Your task to perform on an android device: create a new album in the google photos Image 0: 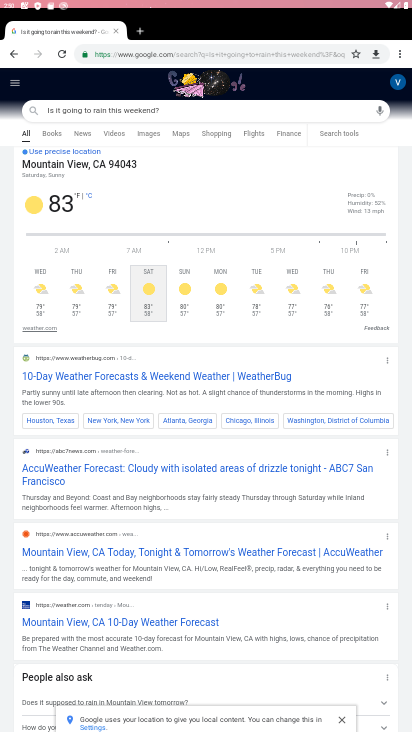
Step 0: drag from (319, 455) to (343, 64)
Your task to perform on an android device: create a new album in the google photos Image 1: 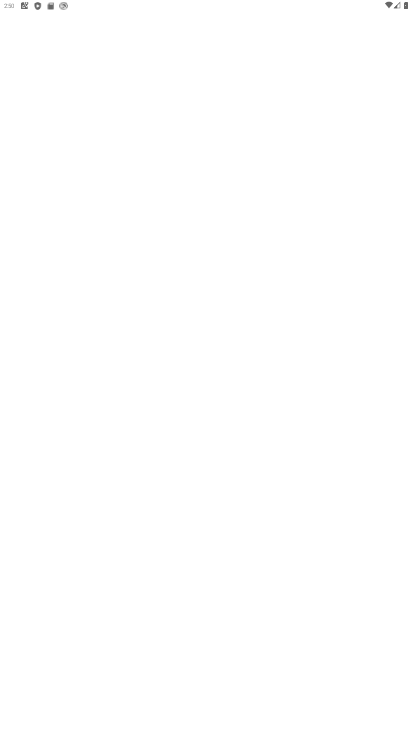
Step 1: press home button
Your task to perform on an android device: create a new album in the google photos Image 2: 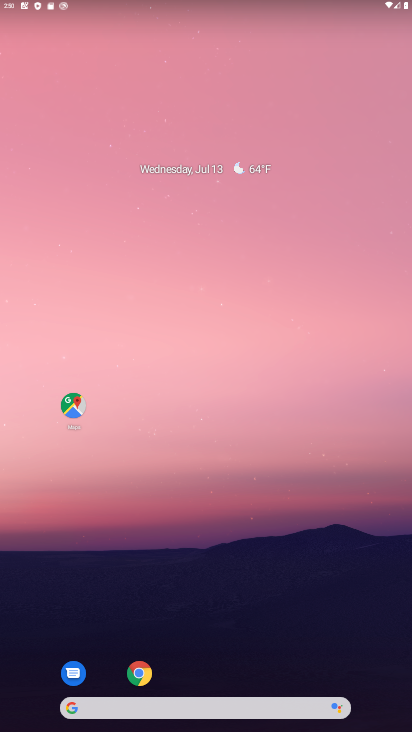
Step 2: drag from (308, 629) to (353, 130)
Your task to perform on an android device: create a new album in the google photos Image 3: 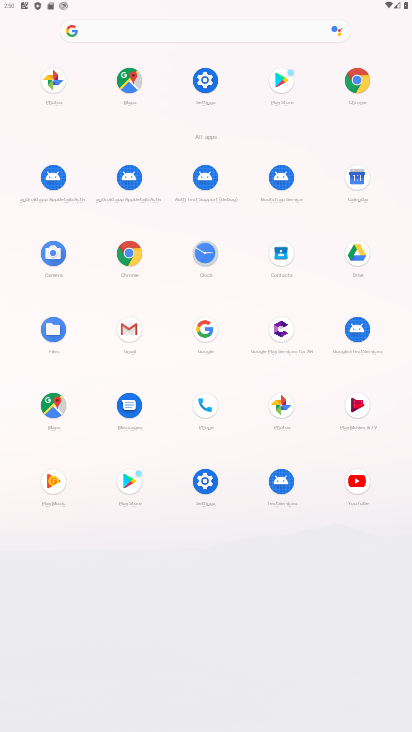
Step 3: click (277, 401)
Your task to perform on an android device: create a new album in the google photos Image 4: 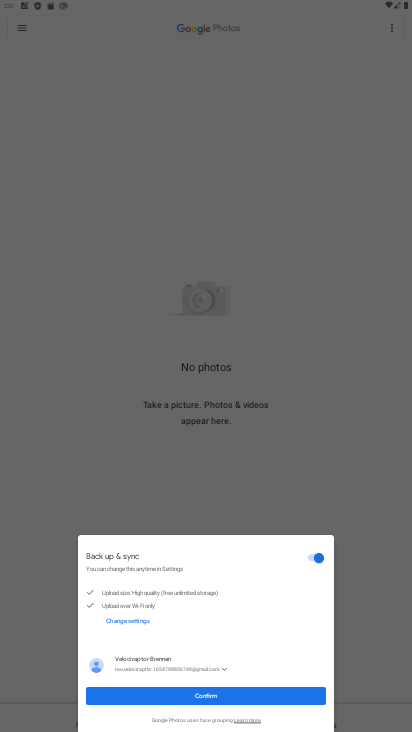
Step 4: click (195, 699)
Your task to perform on an android device: create a new album in the google photos Image 5: 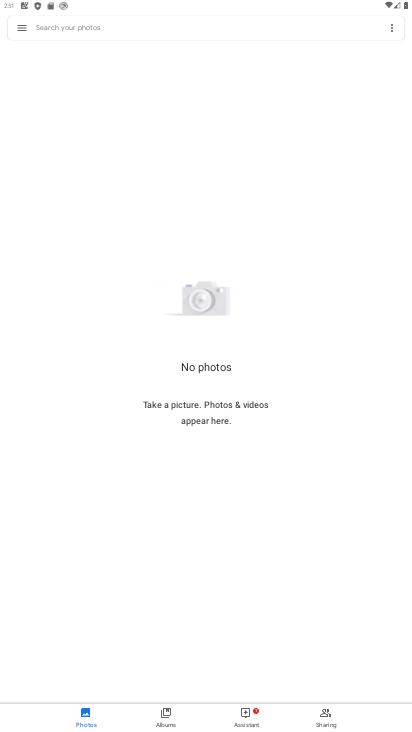
Step 5: task complete